Your task to perform on an android device: open chrome privacy settings Image 0: 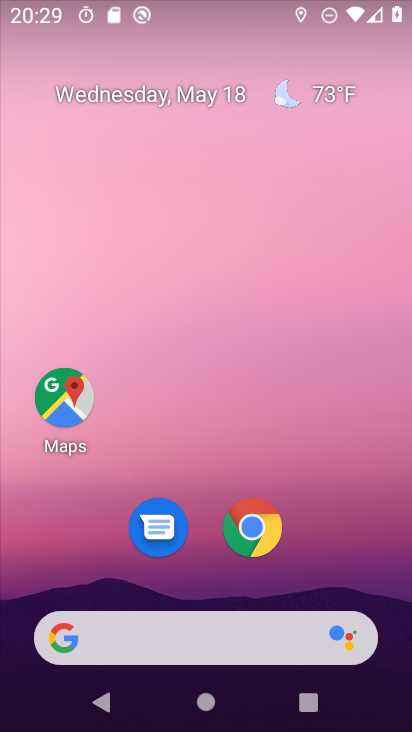
Step 0: click (261, 525)
Your task to perform on an android device: open chrome privacy settings Image 1: 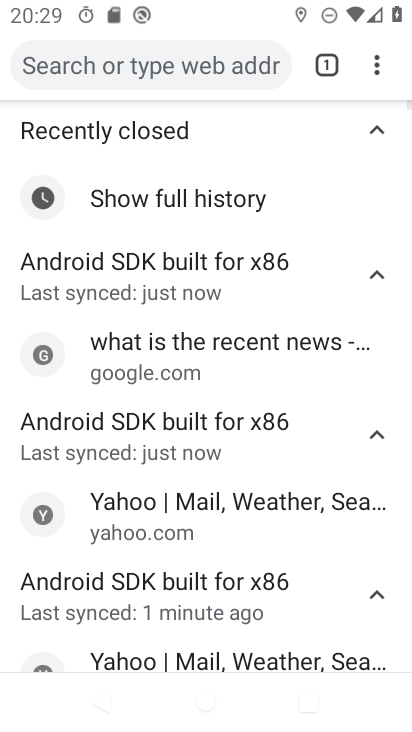
Step 1: click (376, 61)
Your task to perform on an android device: open chrome privacy settings Image 2: 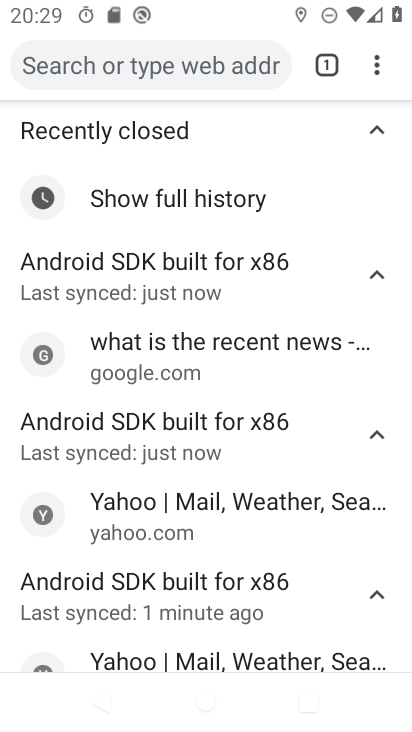
Step 2: click (374, 58)
Your task to perform on an android device: open chrome privacy settings Image 3: 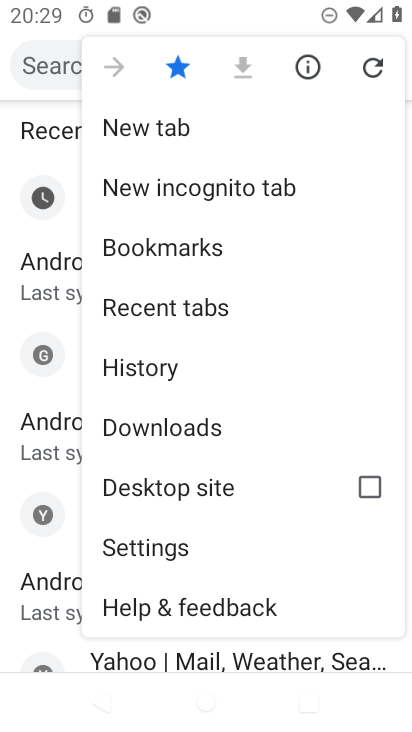
Step 3: click (156, 542)
Your task to perform on an android device: open chrome privacy settings Image 4: 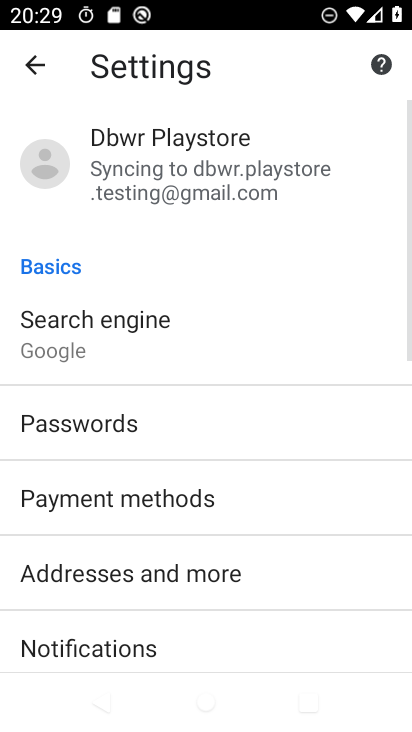
Step 4: drag from (233, 509) to (233, 181)
Your task to perform on an android device: open chrome privacy settings Image 5: 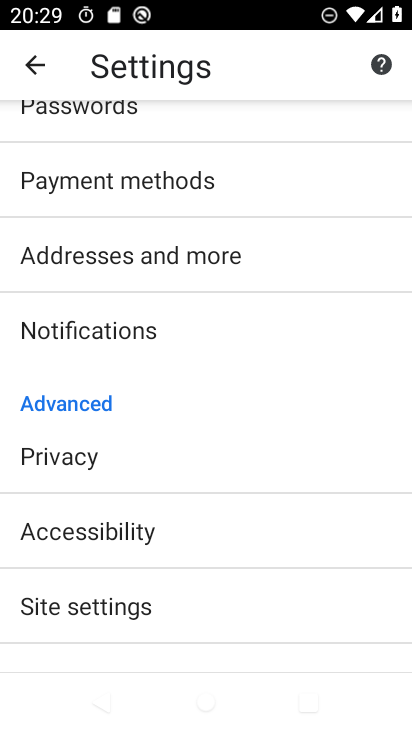
Step 5: click (58, 458)
Your task to perform on an android device: open chrome privacy settings Image 6: 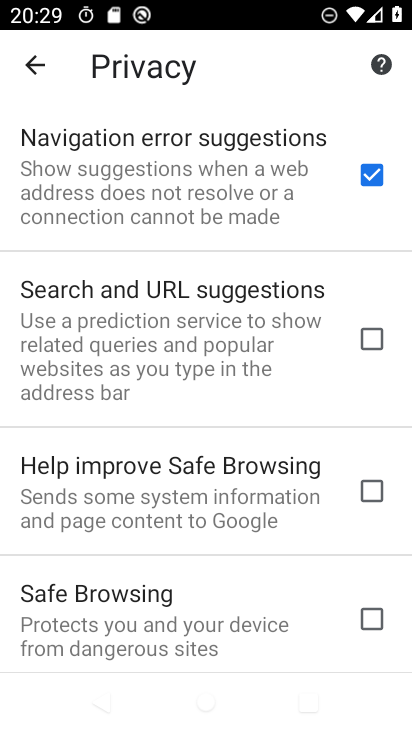
Step 6: task complete